Your task to perform on an android device: turn off location Image 0: 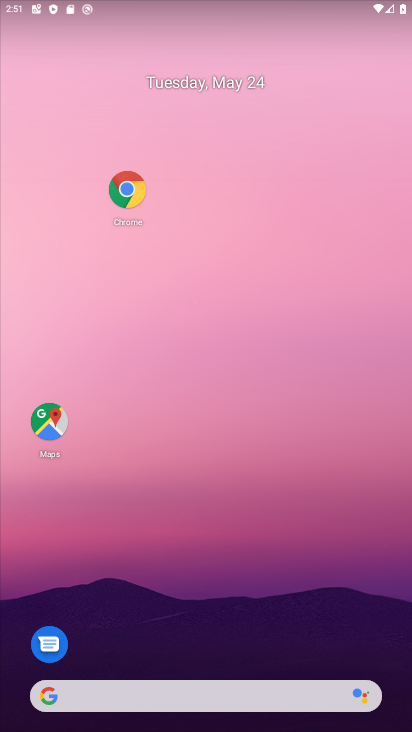
Step 0: drag from (238, 410) to (266, 39)
Your task to perform on an android device: turn off location Image 1: 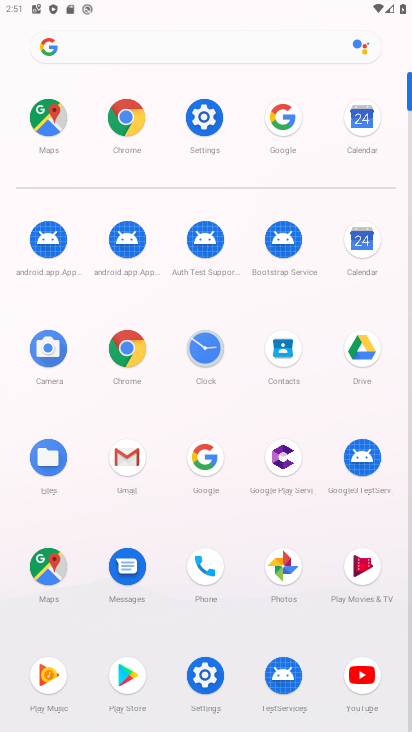
Step 1: click (204, 115)
Your task to perform on an android device: turn off location Image 2: 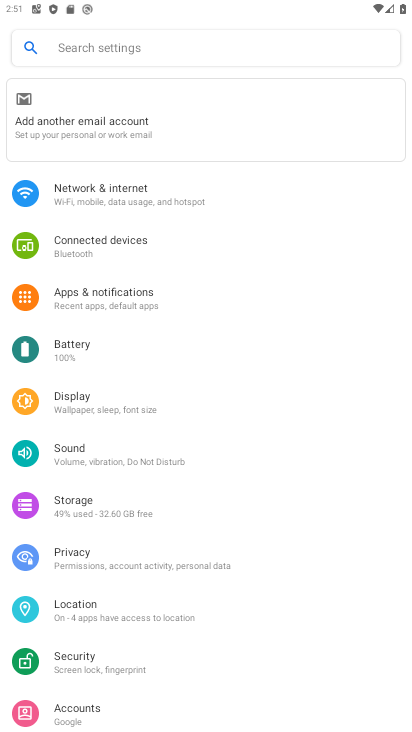
Step 2: click (149, 613)
Your task to perform on an android device: turn off location Image 3: 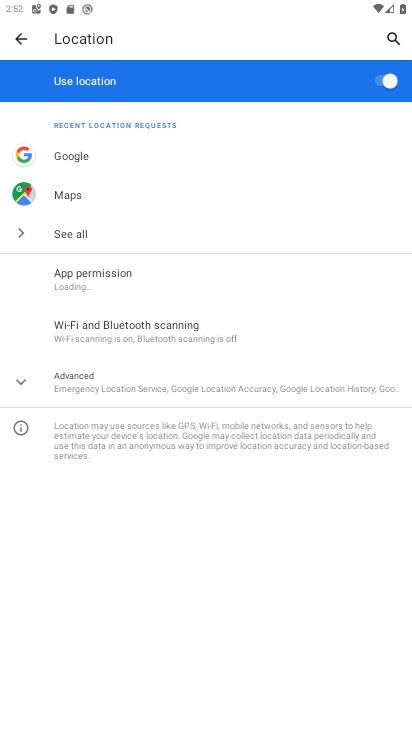
Step 3: click (377, 87)
Your task to perform on an android device: turn off location Image 4: 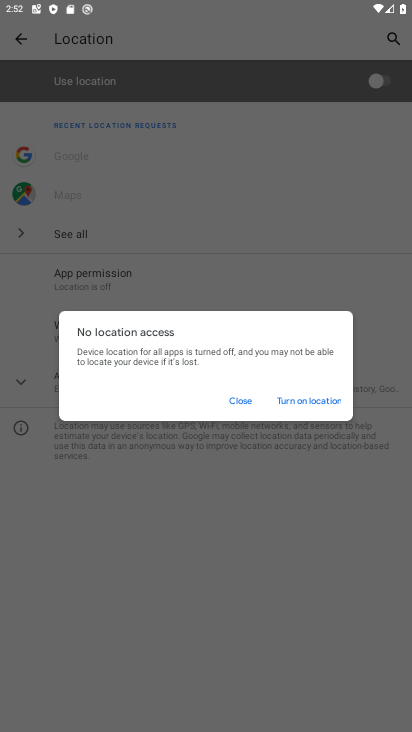
Step 4: click (234, 401)
Your task to perform on an android device: turn off location Image 5: 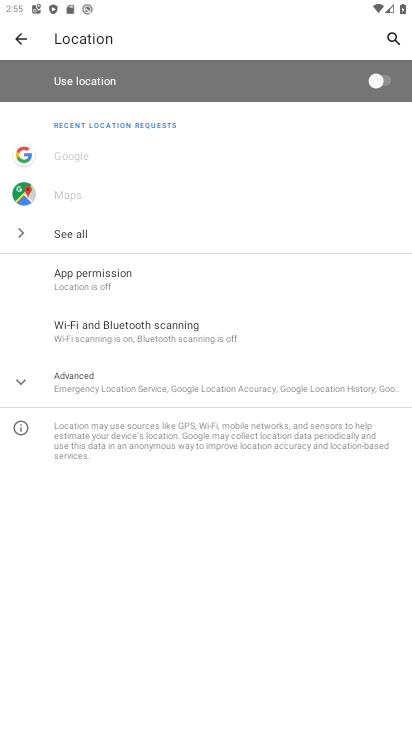
Step 5: task complete